Your task to perform on an android device: When is my next appointment? Image 0: 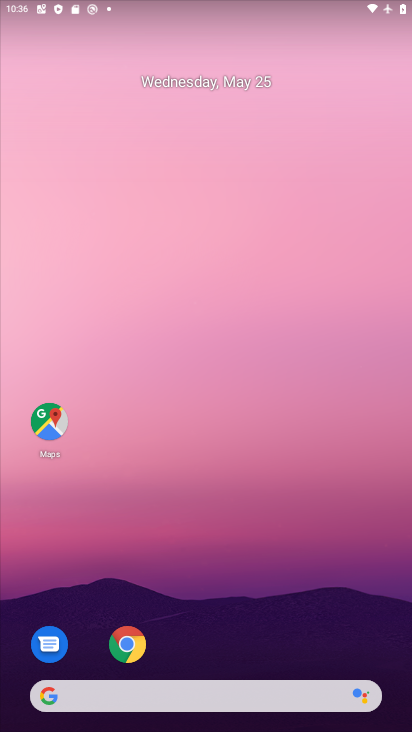
Step 0: drag from (270, 560) to (306, 52)
Your task to perform on an android device: When is my next appointment? Image 1: 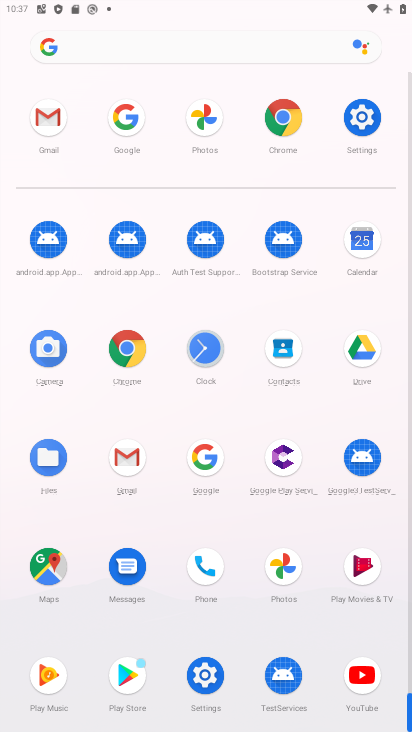
Step 1: click (358, 237)
Your task to perform on an android device: When is my next appointment? Image 2: 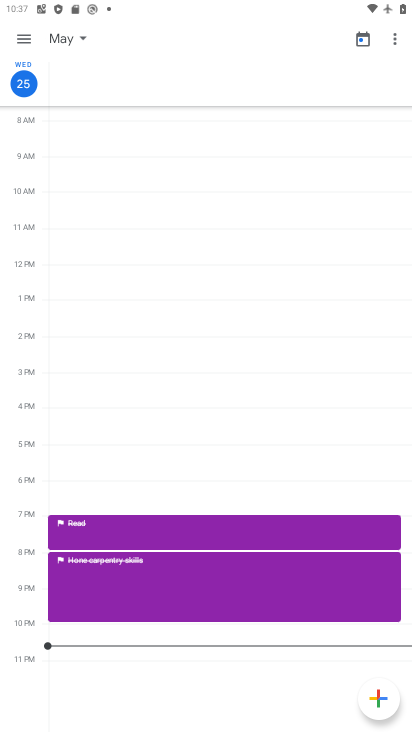
Step 2: click (65, 40)
Your task to perform on an android device: When is my next appointment? Image 3: 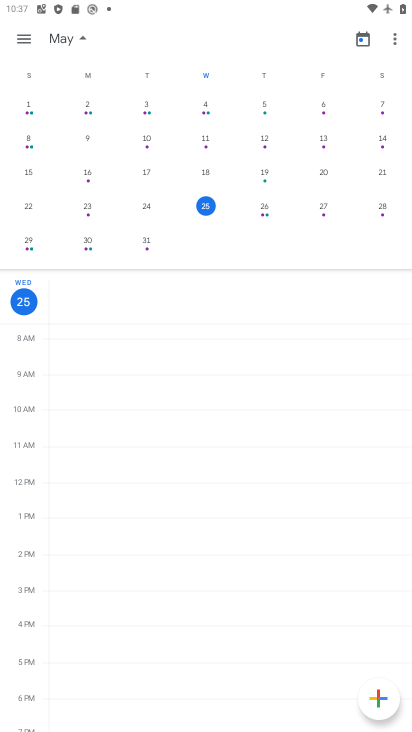
Step 3: drag from (361, 249) to (50, 238)
Your task to perform on an android device: When is my next appointment? Image 4: 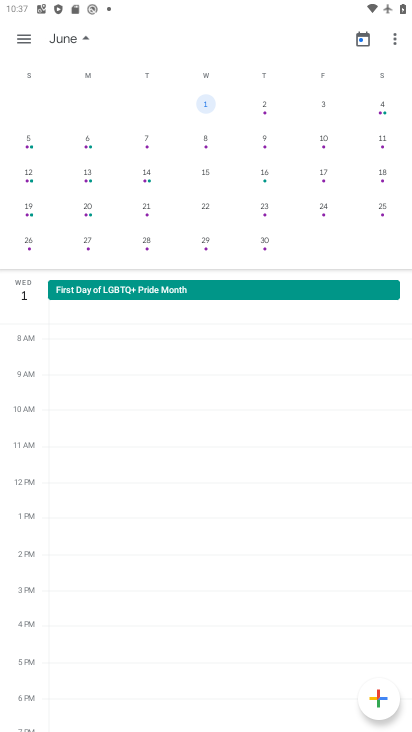
Step 4: drag from (80, 244) to (409, 232)
Your task to perform on an android device: When is my next appointment? Image 5: 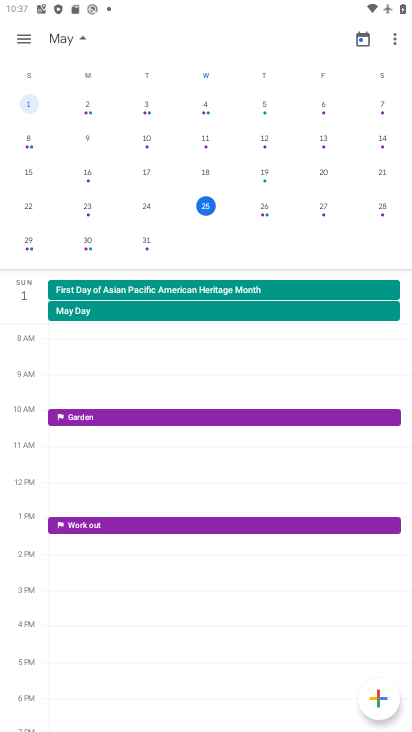
Step 5: click (265, 212)
Your task to perform on an android device: When is my next appointment? Image 6: 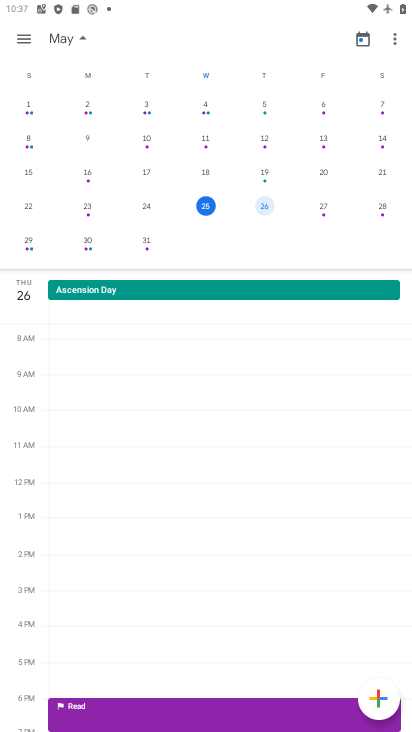
Step 6: click (19, 43)
Your task to perform on an android device: When is my next appointment? Image 7: 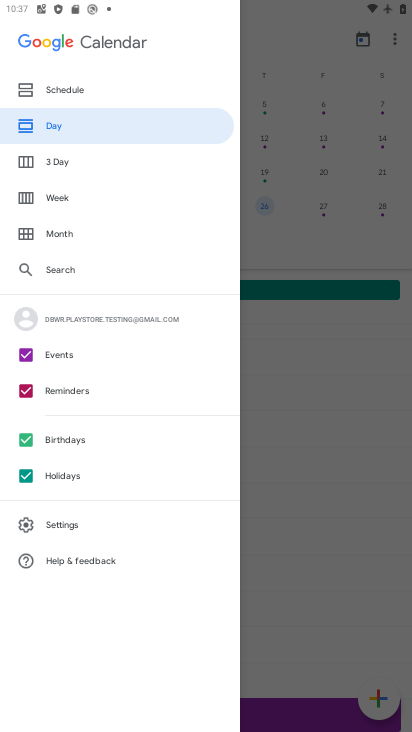
Step 7: click (69, 91)
Your task to perform on an android device: When is my next appointment? Image 8: 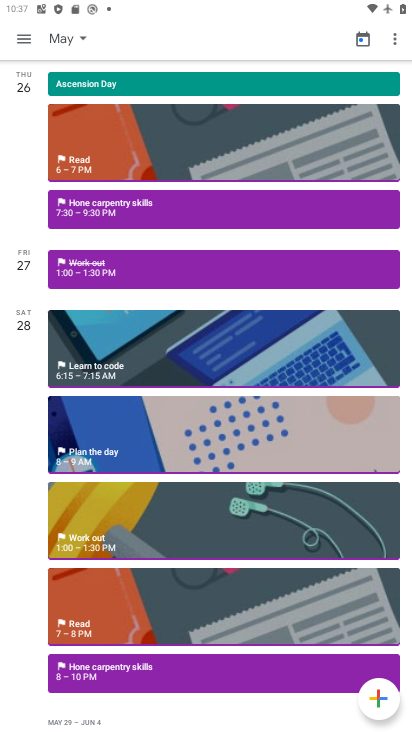
Step 8: task complete